Your task to perform on an android device: change alarm snooze length Image 0: 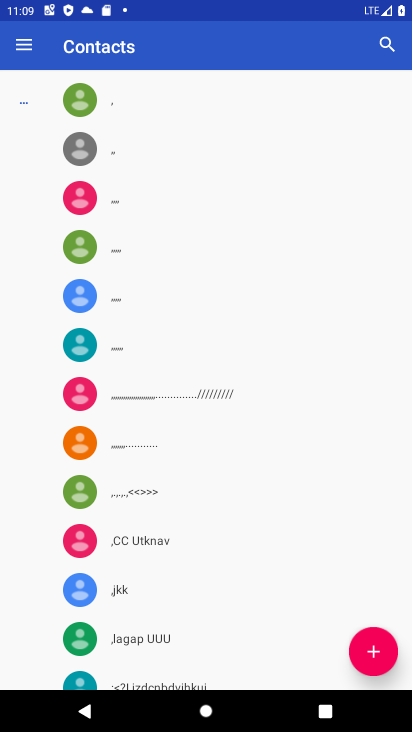
Step 0: press home button
Your task to perform on an android device: change alarm snooze length Image 1: 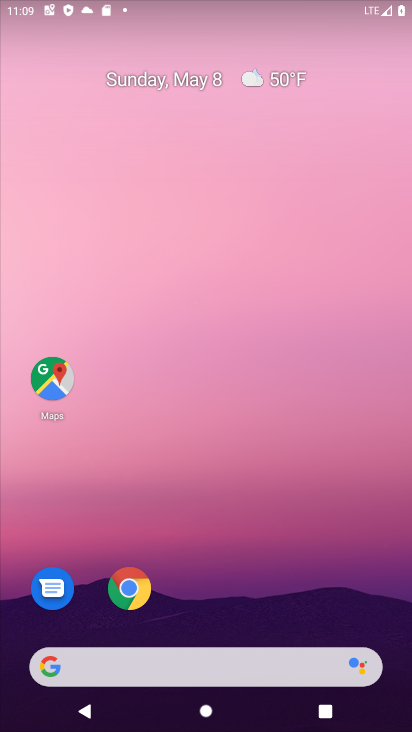
Step 1: drag from (293, 587) to (233, 66)
Your task to perform on an android device: change alarm snooze length Image 2: 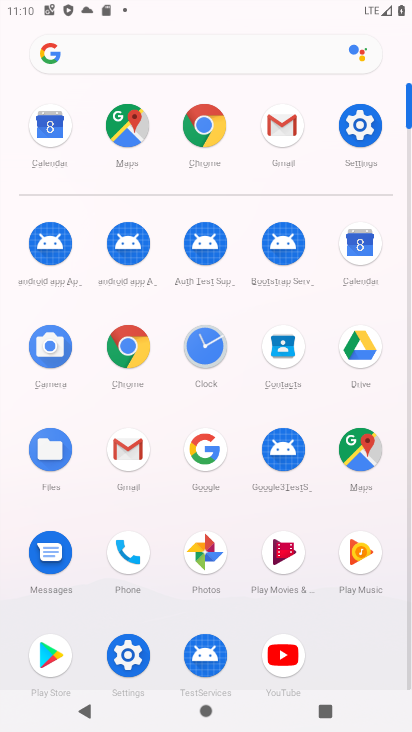
Step 2: click (210, 353)
Your task to perform on an android device: change alarm snooze length Image 3: 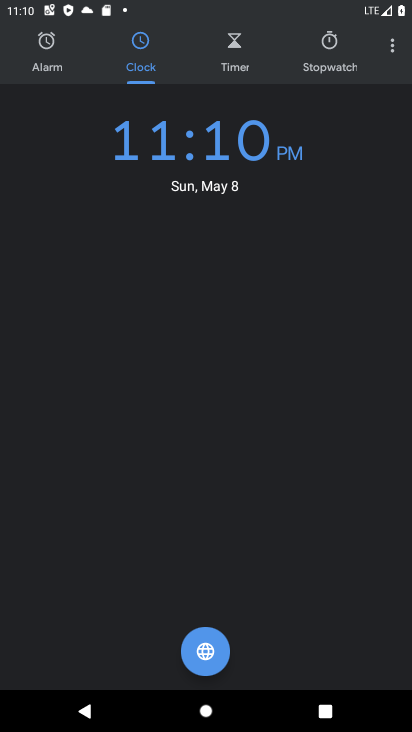
Step 3: click (396, 50)
Your task to perform on an android device: change alarm snooze length Image 4: 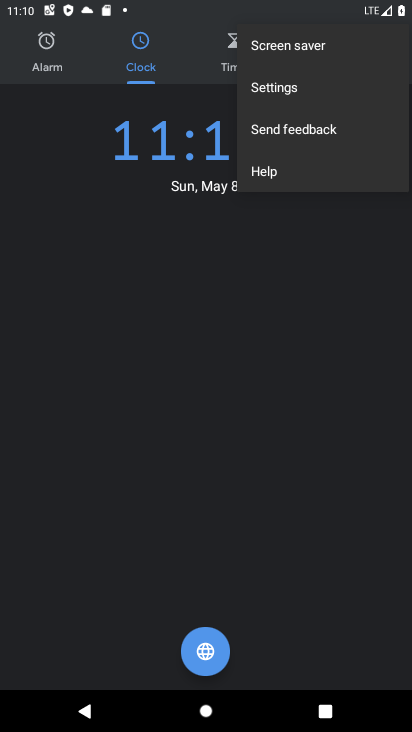
Step 4: click (328, 88)
Your task to perform on an android device: change alarm snooze length Image 5: 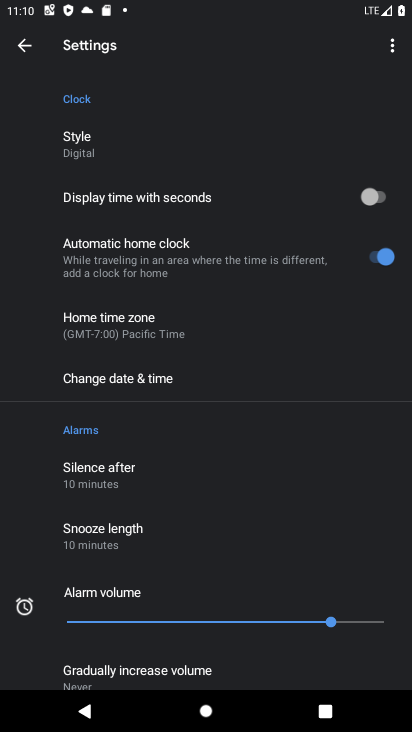
Step 5: click (170, 533)
Your task to perform on an android device: change alarm snooze length Image 6: 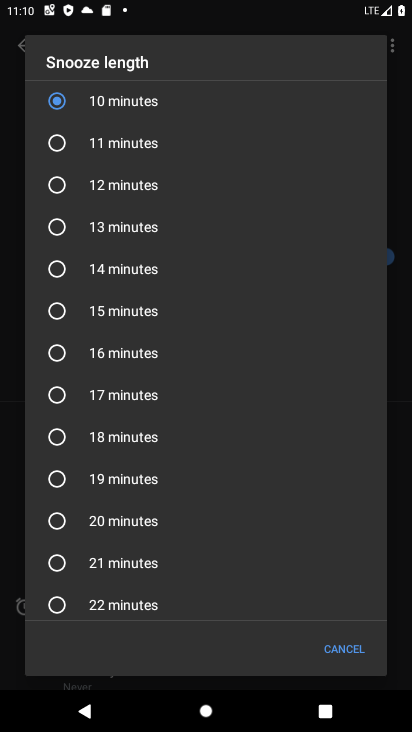
Step 6: click (117, 300)
Your task to perform on an android device: change alarm snooze length Image 7: 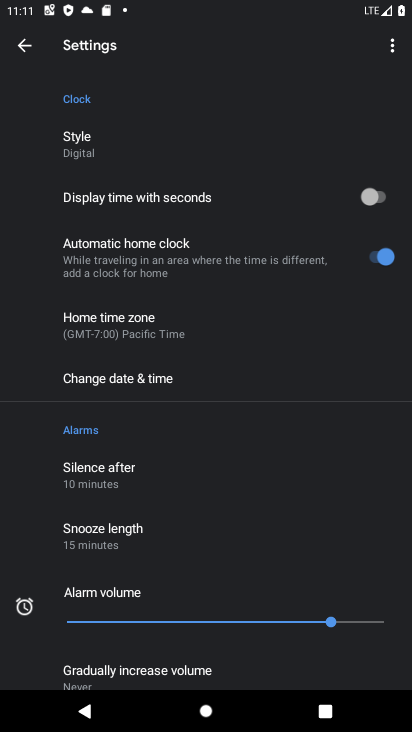
Step 7: task complete